Your task to perform on an android device: open a new tab in the chrome app Image 0: 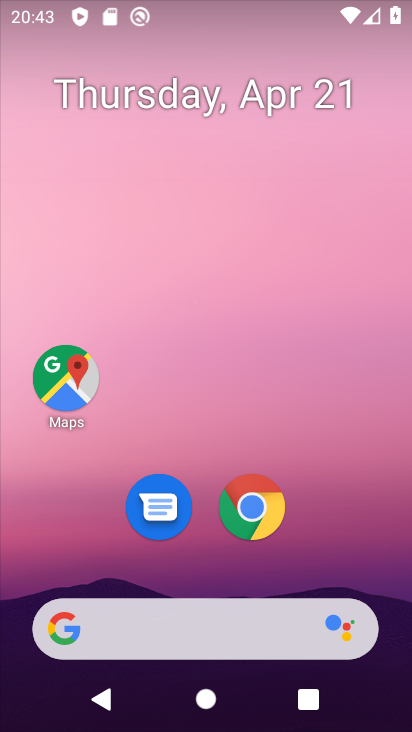
Step 0: click (264, 508)
Your task to perform on an android device: open a new tab in the chrome app Image 1: 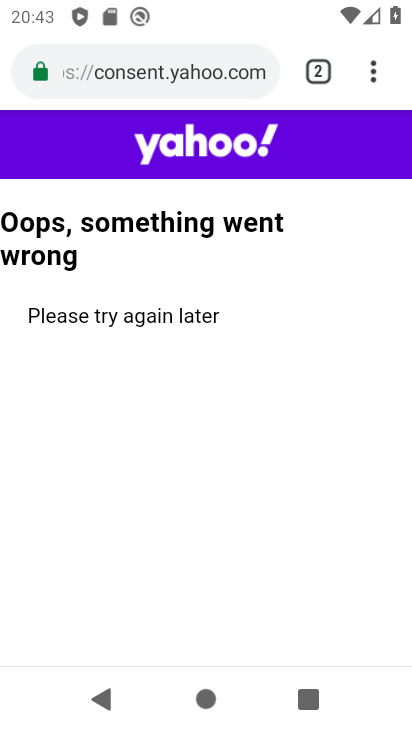
Step 1: task complete